Your task to perform on an android device: snooze an email in the gmail app Image 0: 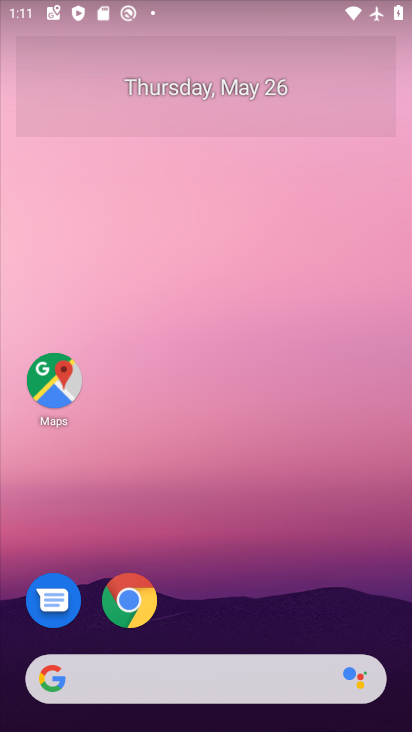
Step 0: drag from (280, 583) to (246, 57)
Your task to perform on an android device: snooze an email in the gmail app Image 1: 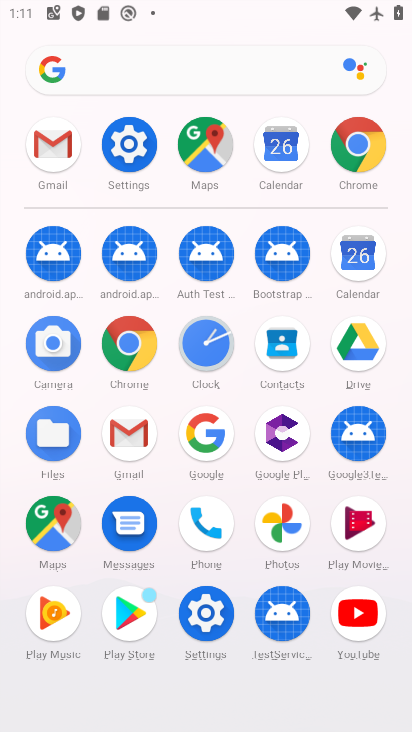
Step 1: click (56, 146)
Your task to perform on an android device: snooze an email in the gmail app Image 2: 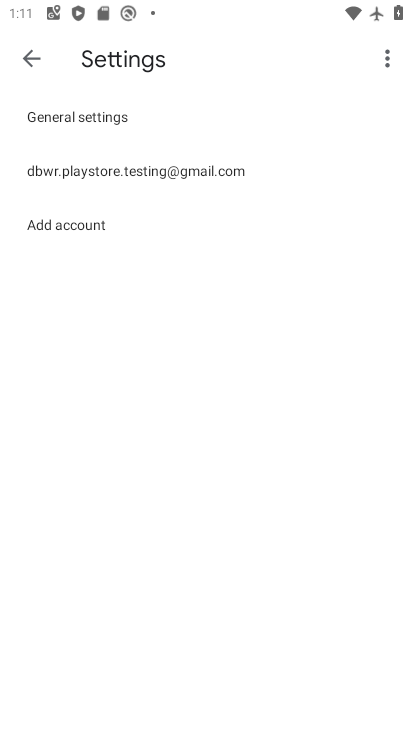
Step 2: click (36, 55)
Your task to perform on an android device: snooze an email in the gmail app Image 3: 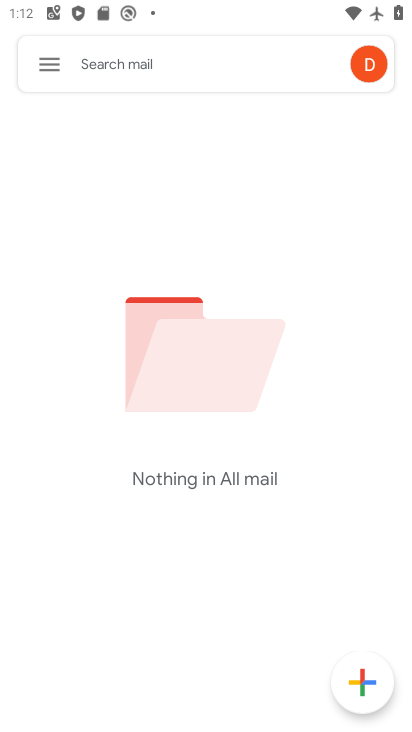
Step 3: task complete